Your task to perform on an android device: check out phone information Image 0: 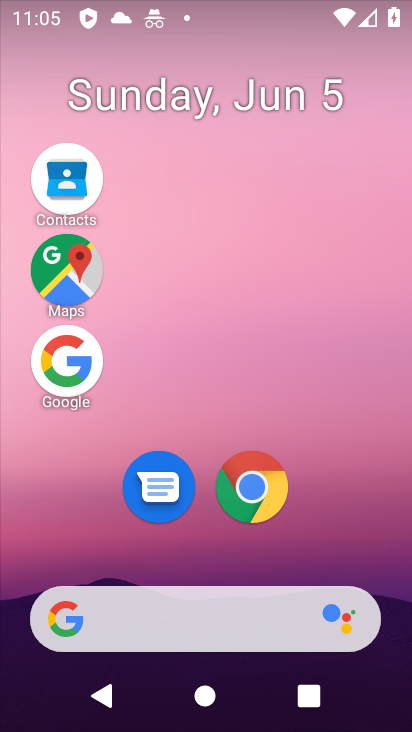
Step 0: drag from (229, 604) to (284, 40)
Your task to perform on an android device: check out phone information Image 1: 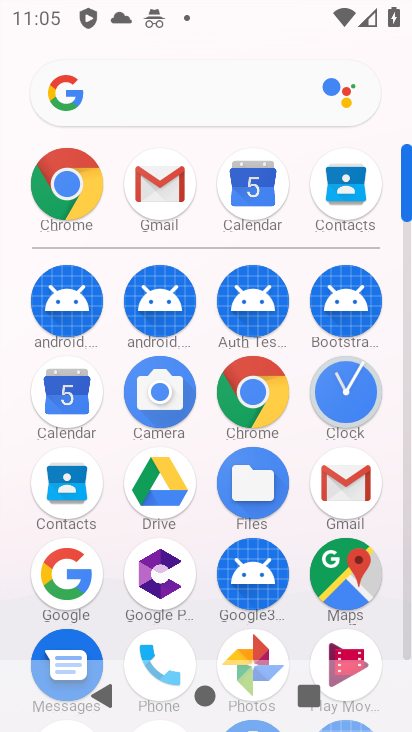
Step 1: drag from (172, 534) to (192, 145)
Your task to perform on an android device: check out phone information Image 2: 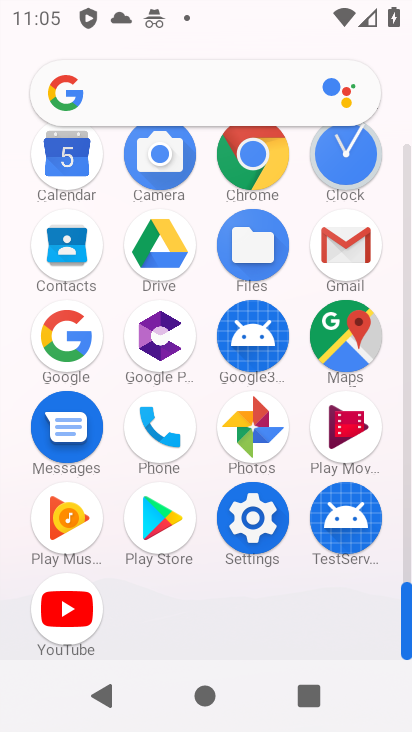
Step 2: click (262, 511)
Your task to perform on an android device: check out phone information Image 3: 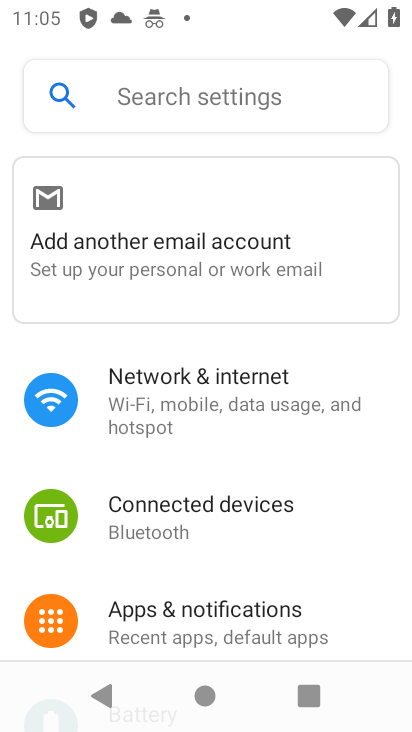
Step 3: drag from (184, 588) to (179, 300)
Your task to perform on an android device: check out phone information Image 4: 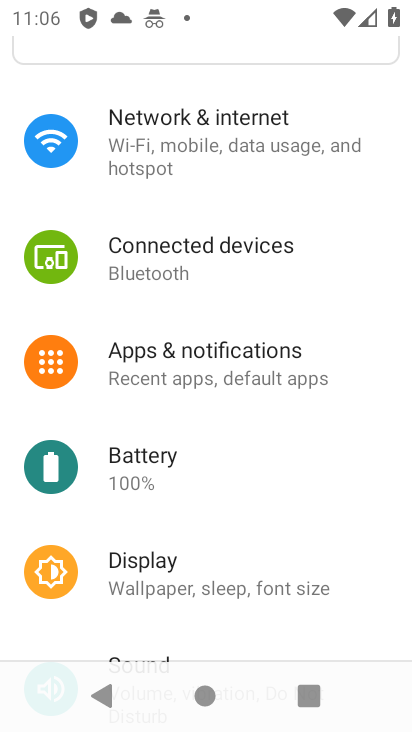
Step 4: drag from (201, 499) to (236, 173)
Your task to perform on an android device: check out phone information Image 5: 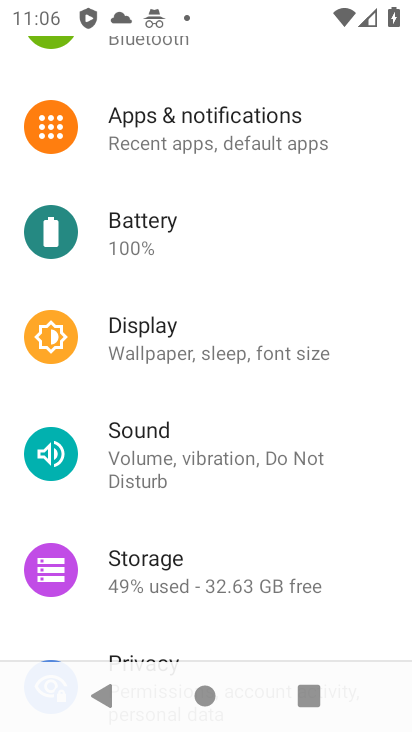
Step 5: drag from (196, 534) to (299, 3)
Your task to perform on an android device: check out phone information Image 6: 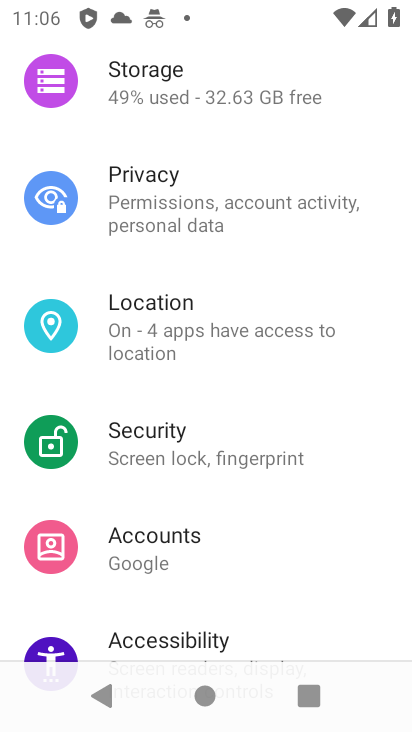
Step 6: drag from (172, 569) to (255, 99)
Your task to perform on an android device: check out phone information Image 7: 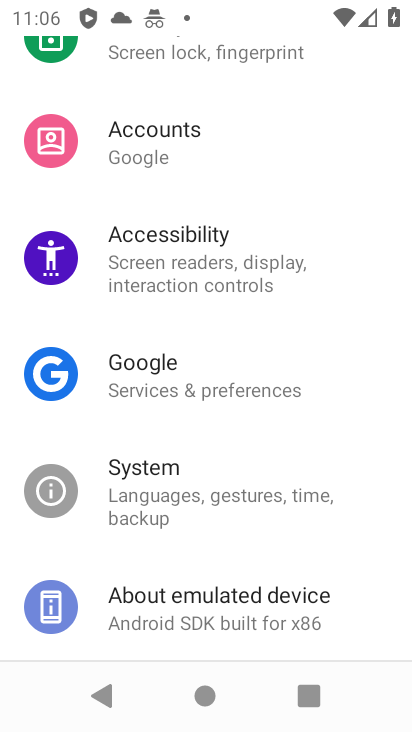
Step 7: drag from (191, 551) to (230, 143)
Your task to perform on an android device: check out phone information Image 8: 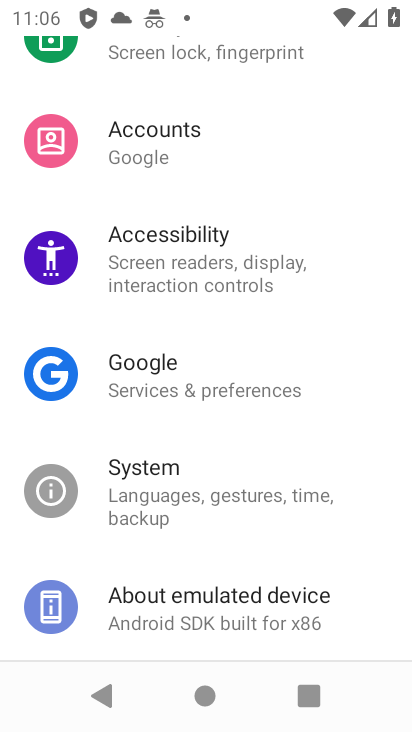
Step 8: click (210, 611)
Your task to perform on an android device: check out phone information Image 9: 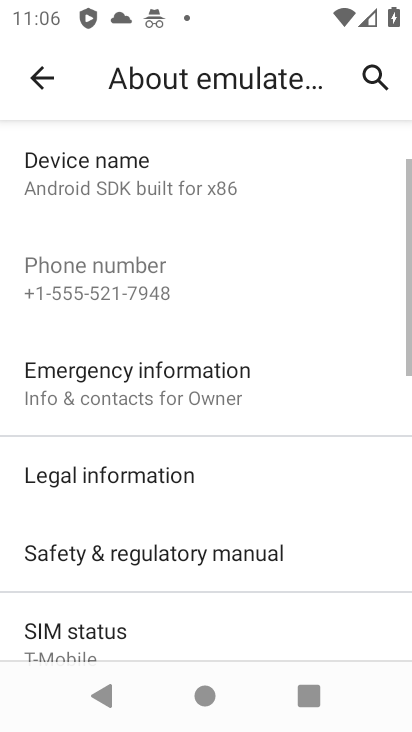
Step 9: task complete